Your task to perform on an android device: Open the phone app and click the voicemail tab. Image 0: 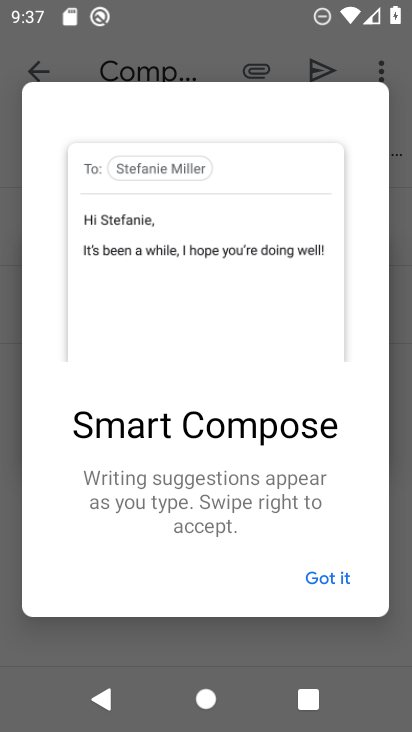
Step 0: press home button
Your task to perform on an android device: Open the phone app and click the voicemail tab. Image 1: 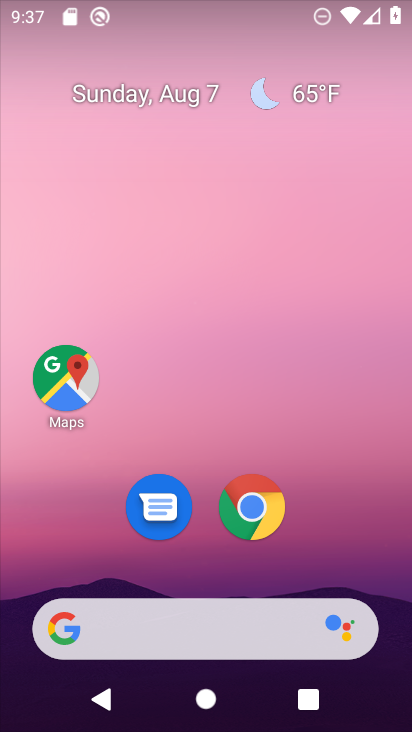
Step 1: drag from (301, 556) to (279, 0)
Your task to perform on an android device: Open the phone app and click the voicemail tab. Image 2: 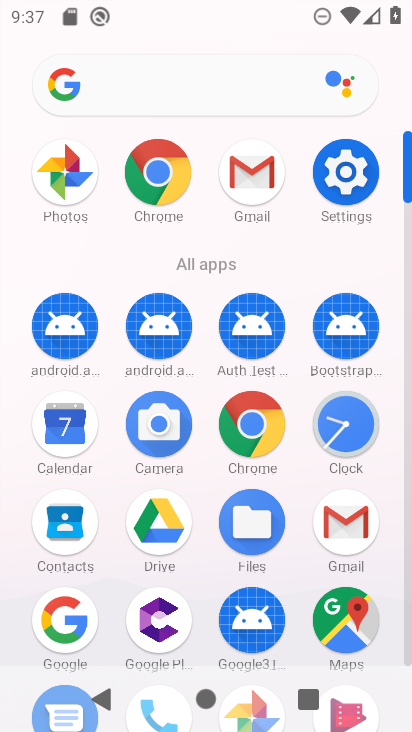
Step 2: drag from (310, 485) to (300, 117)
Your task to perform on an android device: Open the phone app and click the voicemail tab. Image 3: 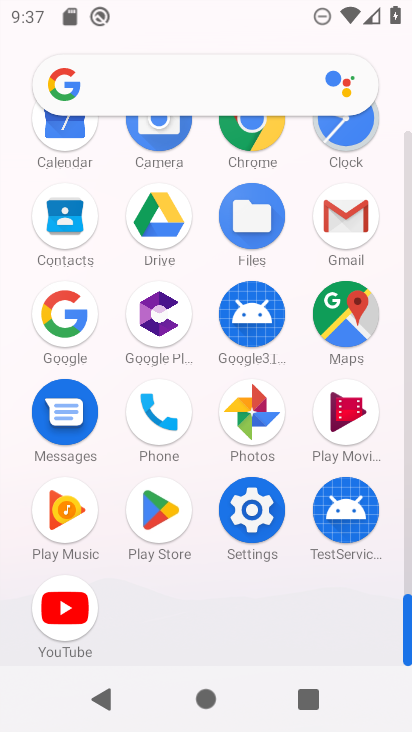
Step 3: click (159, 407)
Your task to perform on an android device: Open the phone app and click the voicemail tab. Image 4: 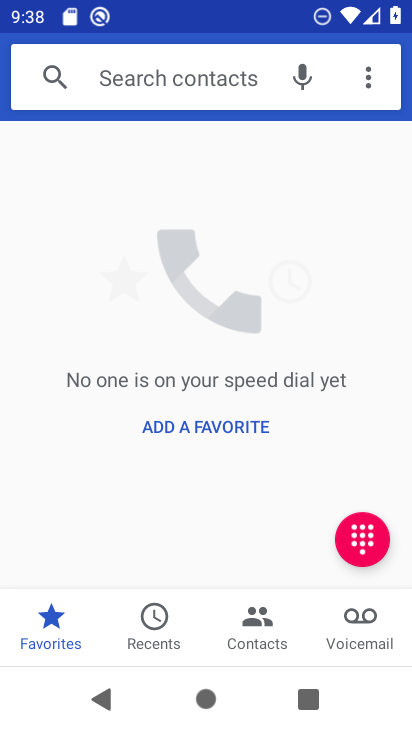
Step 4: task complete